Your task to perform on an android device: Open Chrome and go to settings Image 0: 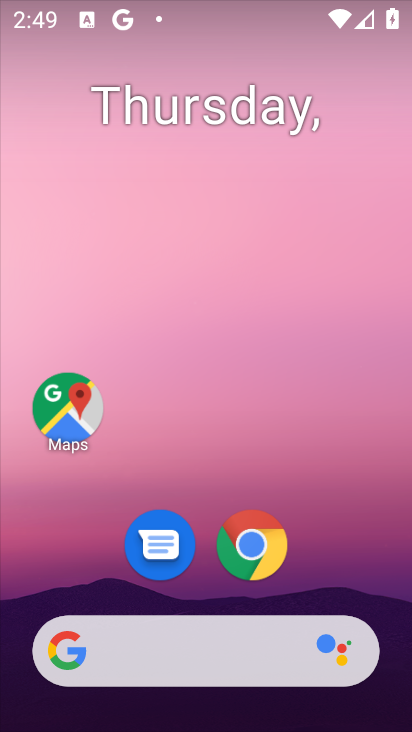
Step 0: click (268, 546)
Your task to perform on an android device: Open Chrome and go to settings Image 1: 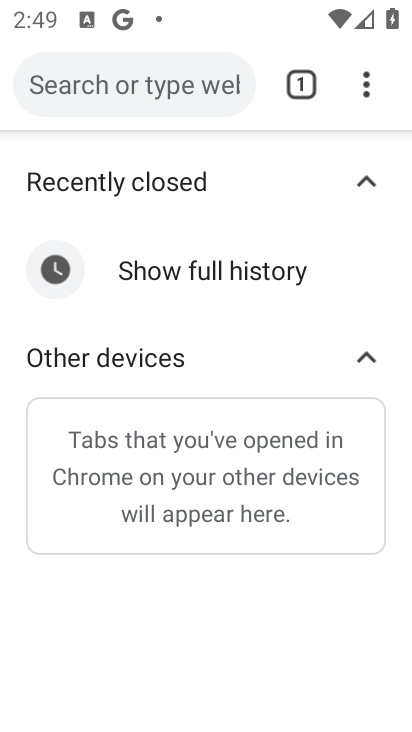
Step 1: click (363, 86)
Your task to perform on an android device: Open Chrome and go to settings Image 2: 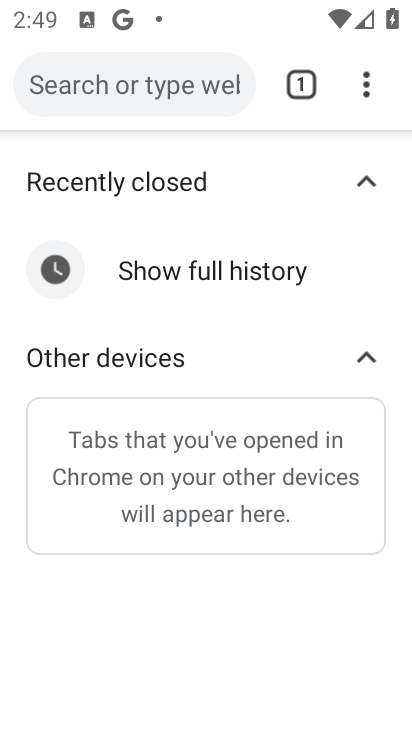
Step 2: click (361, 96)
Your task to perform on an android device: Open Chrome and go to settings Image 3: 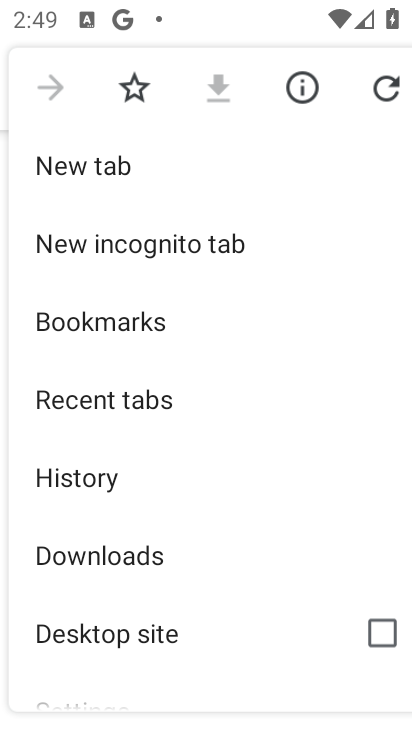
Step 3: click (111, 704)
Your task to perform on an android device: Open Chrome and go to settings Image 4: 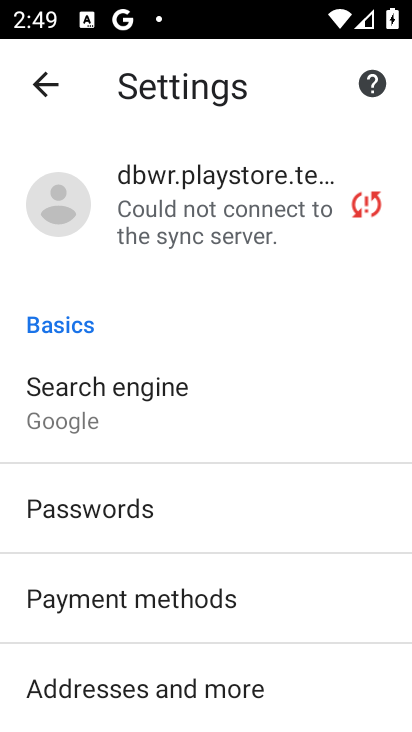
Step 4: task complete